Your task to perform on an android device: change the clock display to analog Image 0: 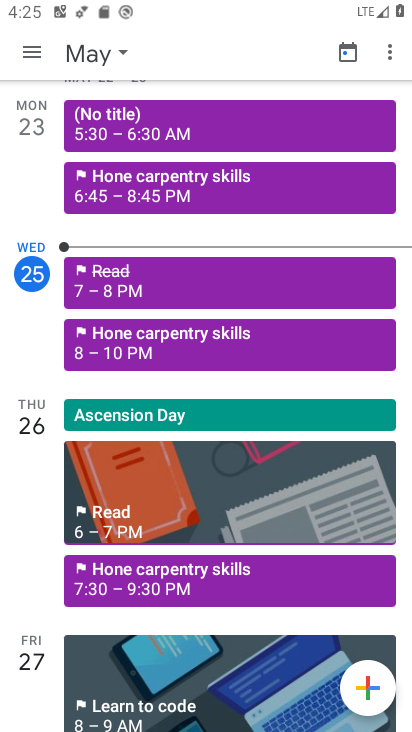
Step 0: press home button
Your task to perform on an android device: change the clock display to analog Image 1: 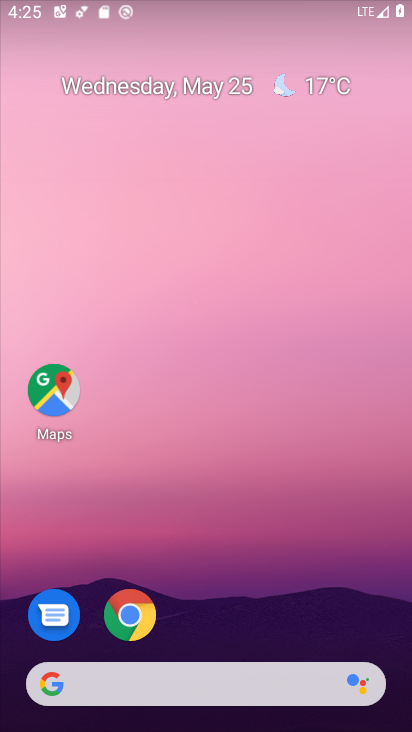
Step 1: drag from (249, 264) to (183, 27)
Your task to perform on an android device: change the clock display to analog Image 2: 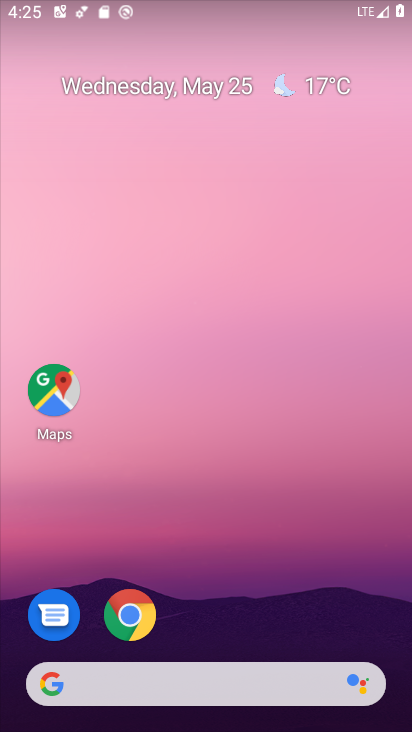
Step 2: drag from (270, 525) to (247, 17)
Your task to perform on an android device: change the clock display to analog Image 3: 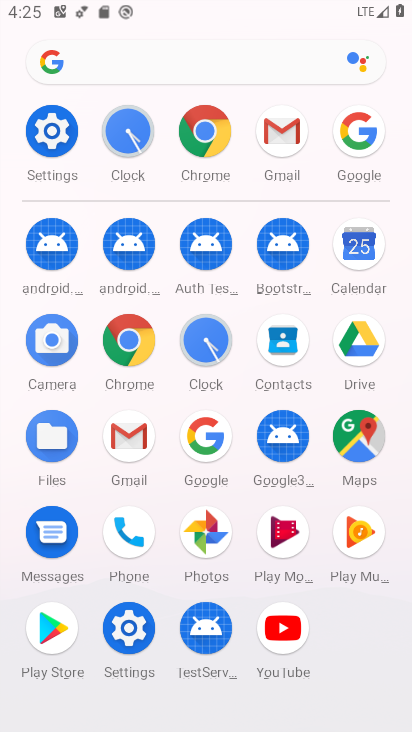
Step 3: click (130, 119)
Your task to perform on an android device: change the clock display to analog Image 4: 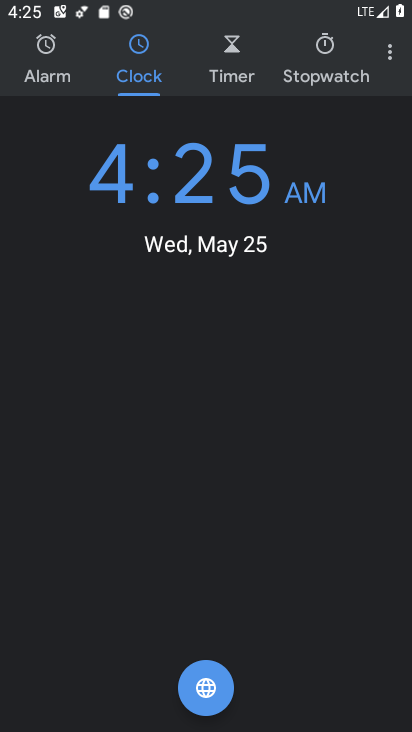
Step 4: click (389, 62)
Your task to perform on an android device: change the clock display to analog Image 5: 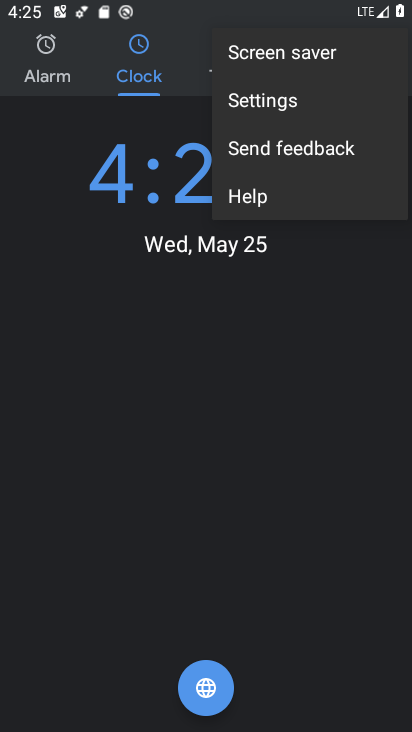
Step 5: click (284, 88)
Your task to perform on an android device: change the clock display to analog Image 6: 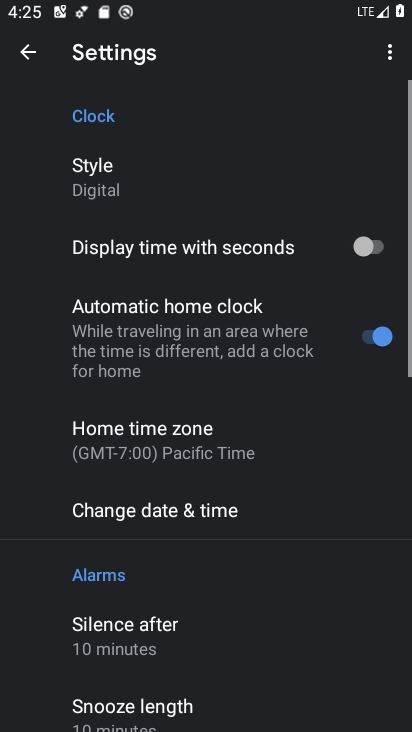
Step 6: click (102, 182)
Your task to perform on an android device: change the clock display to analog Image 7: 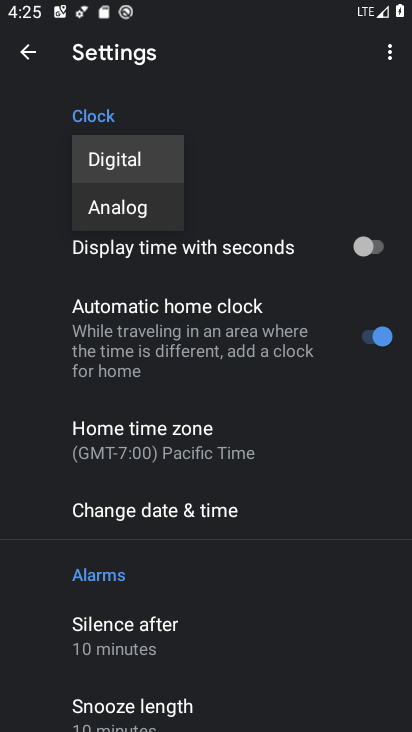
Step 7: click (157, 218)
Your task to perform on an android device: change the clock display to analog Image 8: 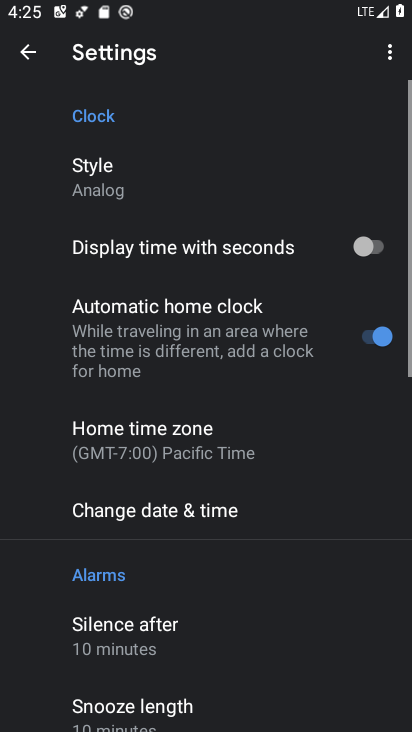
Step 8: task complete